Your task to perform on an android device: Check the news Image 0: 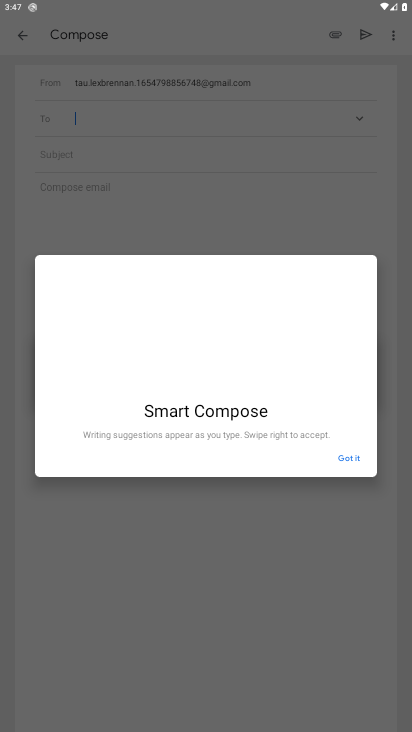
Step 0: press home button
Your task to perform on an android device: Check the news Image 1: 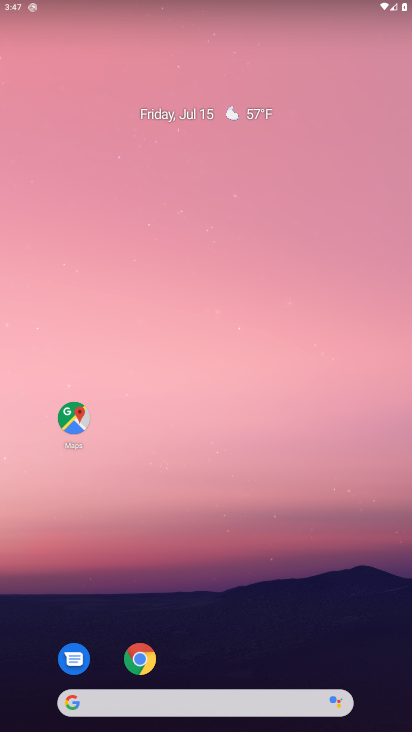
Step 1: click (138, 702)
Your task to perform on an android device: Check the news Image 2: 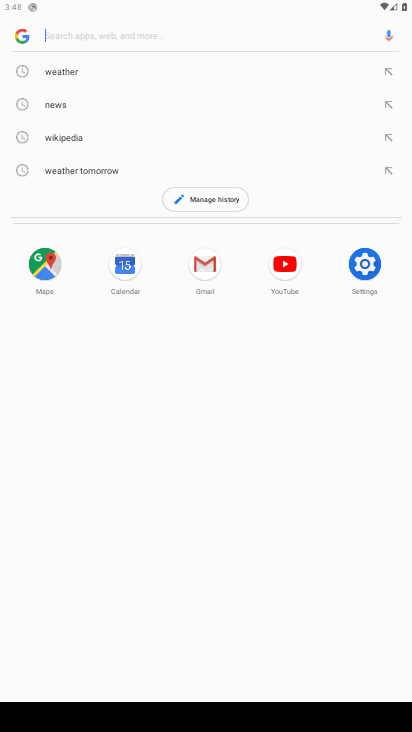
Step 2: click (75, 102)
Your task to perform on an android device: Check the news Image 3: 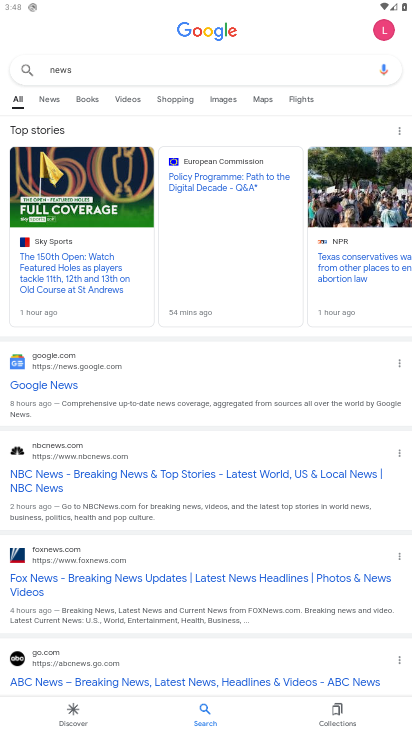
Step 3: task complete